Your task to perform on an android device: Go to Reddit.com Image 0: 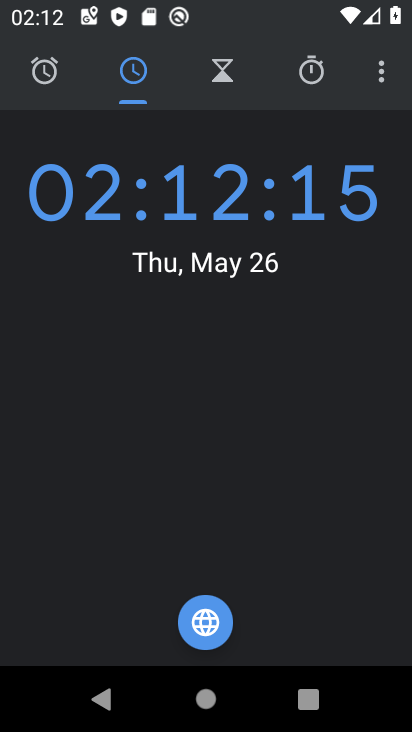
Step 0: press home button
Your task to perform on an android device: Go to Reddit.com Image 1: 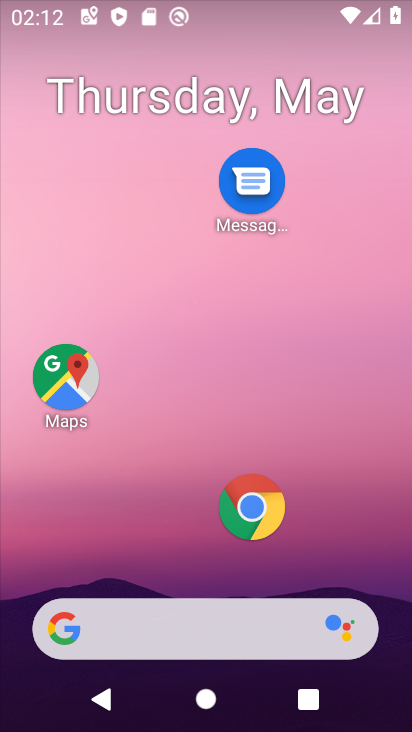
Step 1: drag from (257, 660) to (302, 4)
Your task to perform on an android device: Go to Reddit.com Image 2: 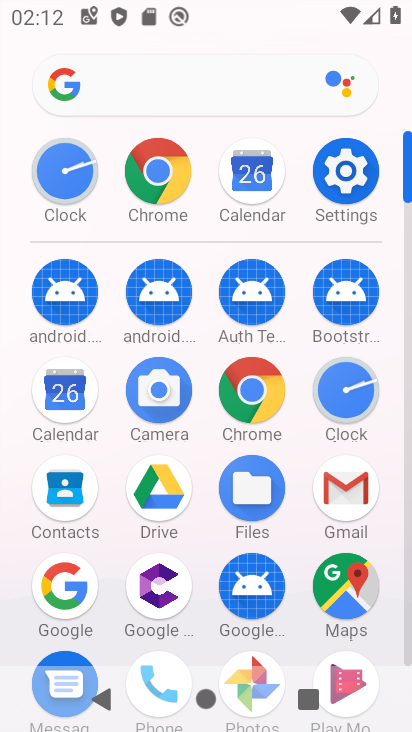
Step 2: click (260, 402)
Your task to perform on an android device: Go to Reddit.com Image 3: 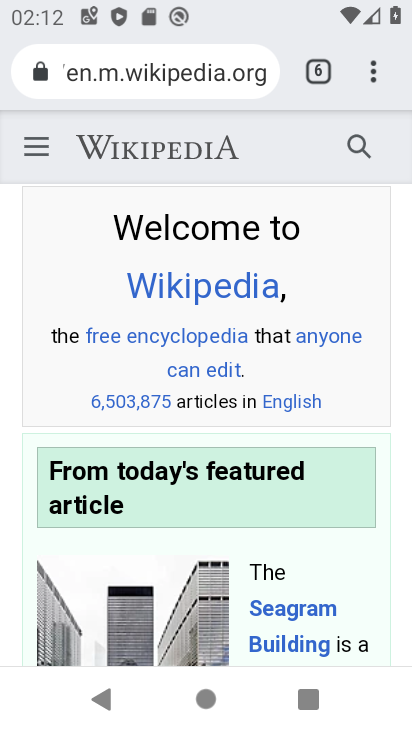
Step 3: click (229, 71)
Your task to perform on an android device: Go to Reddit.com Image 4: 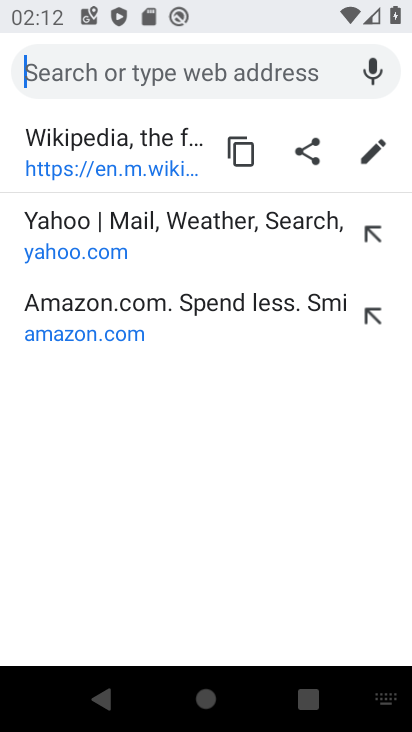
Step 4: type "reddit.com"
Your task to perform on an android device: Go to Reddit.com Image 5: 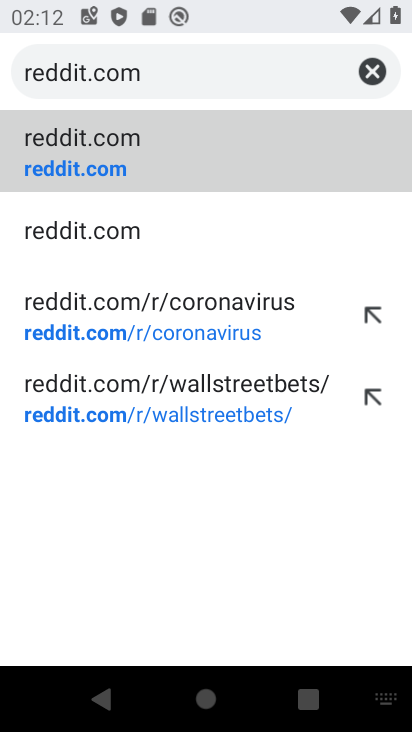
Step 5: click (170, 162)
Your task to perform on an android device: Go to Reddit.com Image 6: 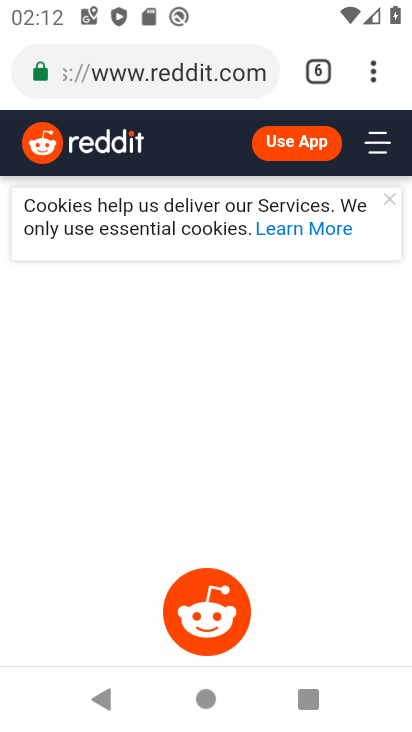
Step 6: task complete